Your task to perform on an android device: check google app version Image 0: 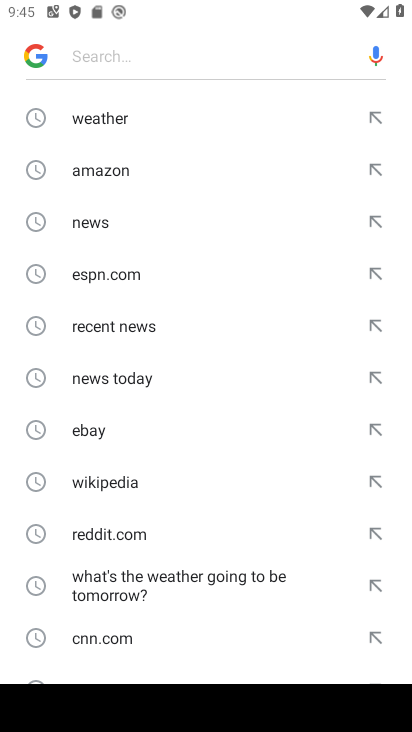
Step 0: press home button
Your task to perform on an android device: check google app version Image 1: 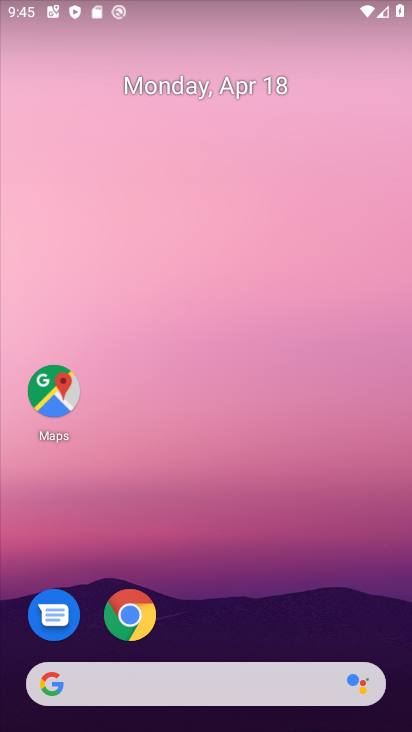
Step 1: drag from (271, 652) to (258, 302)
Your task to perform on an android device: check google app version Image 2: 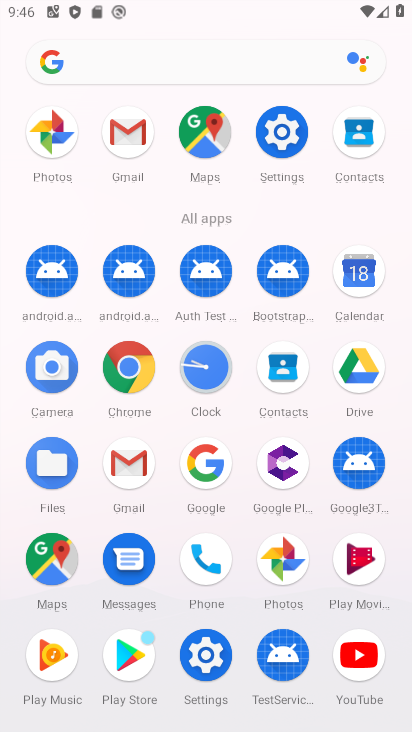
Step 2: click (208, 451)
Your task to perform on an android device: check google app version Image 3: 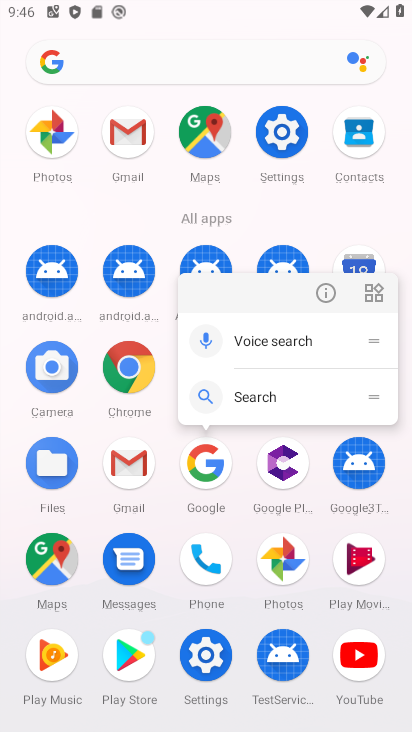
Step 3: click (315, 292)
Your task to perform on an android device: check google app version Image 4: 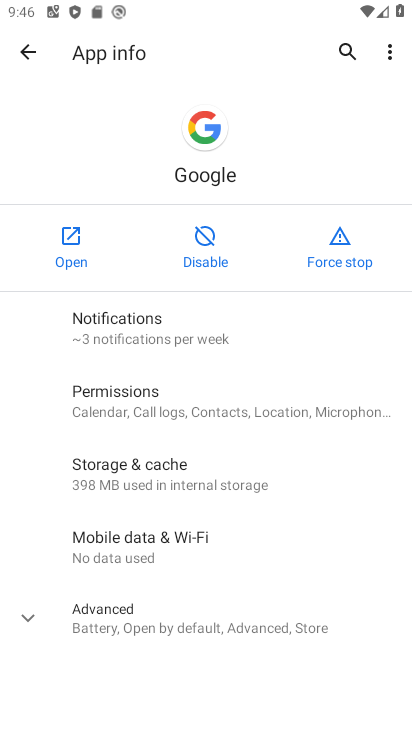
Step 4: click (156, 620)
Your task to perform on an android device: check google app version Image 5: 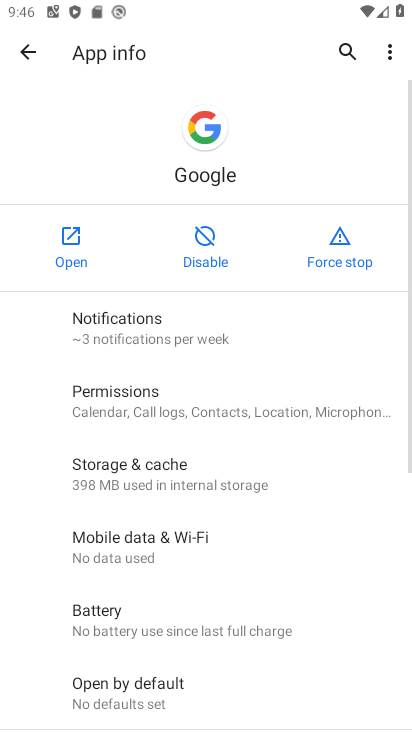
Step 5: task complete